Your task to perform on an android device: Open privacy settings Image 0: 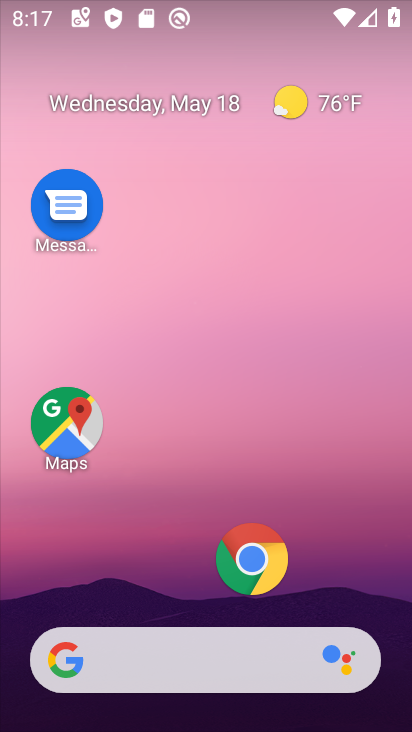
Step 0: drag from (181, 620) to (195, 21)
Your task to perform on an android device: Open privacy settings Image 1: 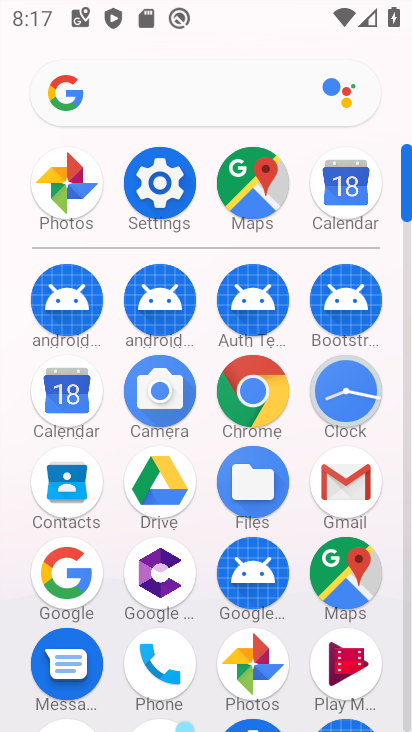
Step 1: click (181, 190)
Your task to perform on an android device: Open privacy settings Image 2: 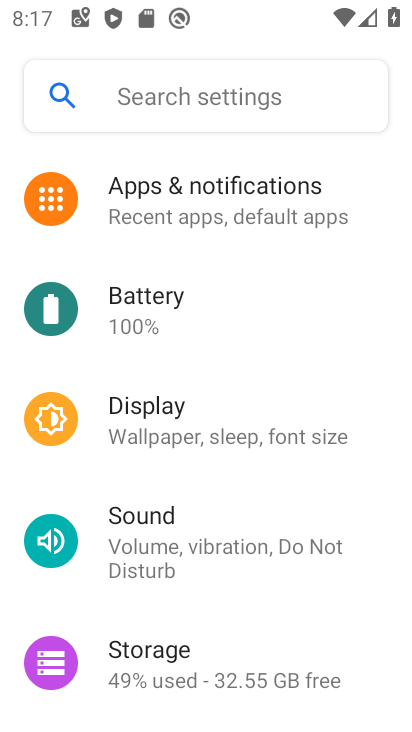
Step 2: drag from (190, 668) to (145, 312)
Your task to perform on an android device: Open privacy settings Image 3: 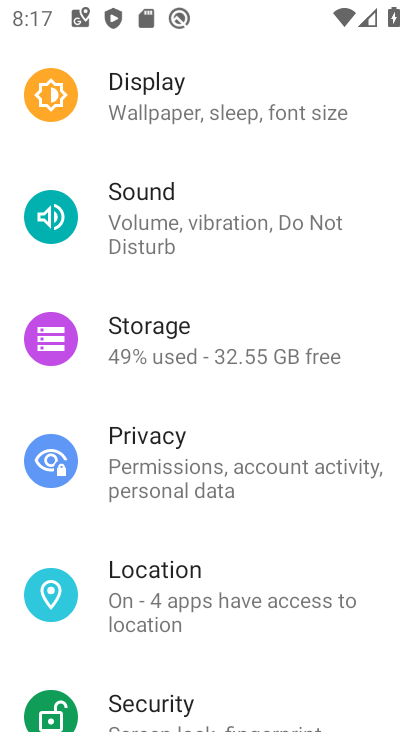
Step 3: click (148, 467)
Your task to perform on an android device: Open privacy settings Image 4: 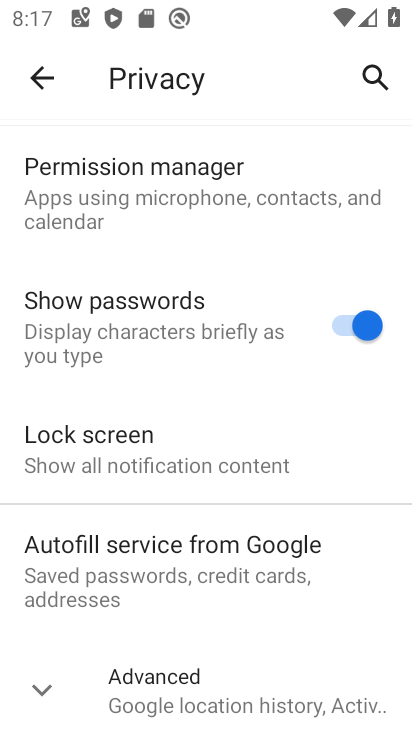
Step 4: task complete